Your task to perform on an android device: Is it going to rain today? Image 0: 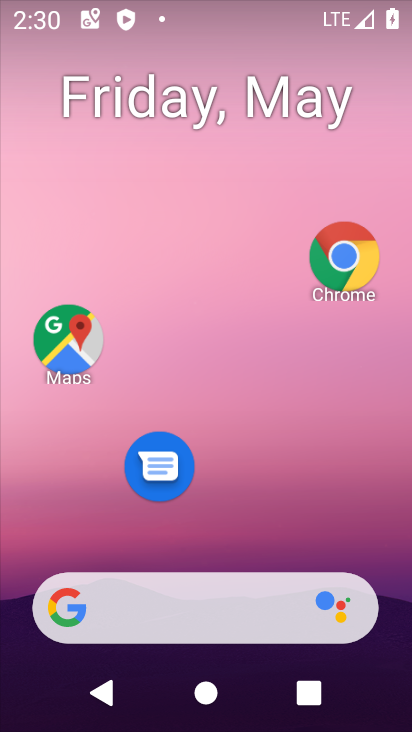
Step 0: drag from (276, 516) to (266, 39)
Your task to perform on an android device: Is it going to rain today? Image 1: 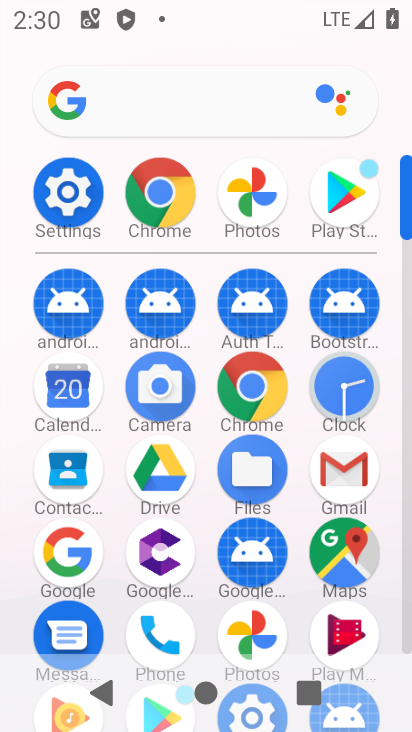
Step 1: click (242, 388)
Your task to perform on an android device: Is it going to rain today? Image 2: 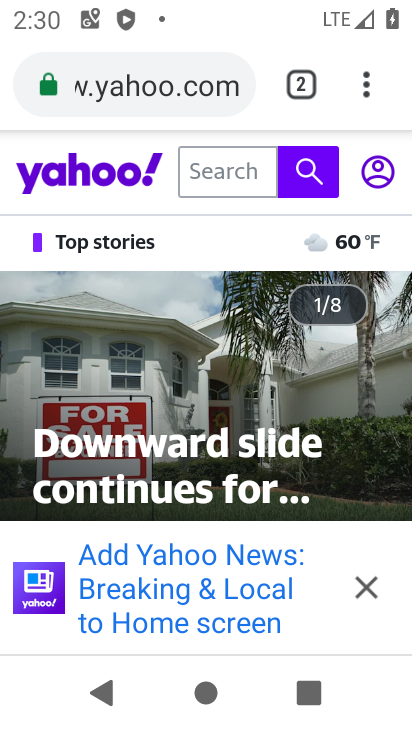
Step 2: click (191, 92)
Your task to perform on an android device: Is it going to rain today? Image 3: 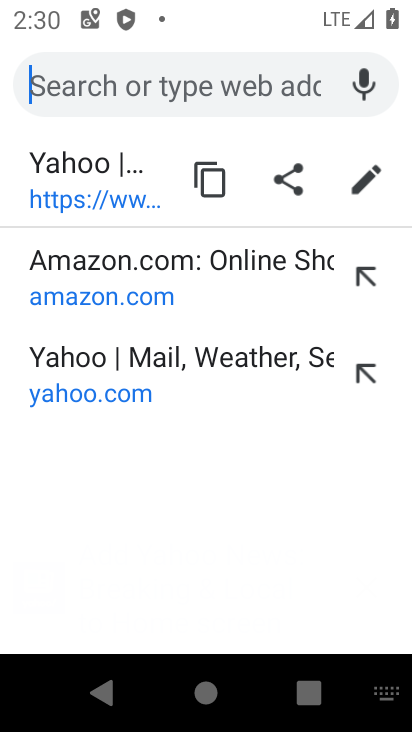
Step 3: type "Is it going to rain today?"
Your task to perform on an android device: Is it going to rain today? Image 4: 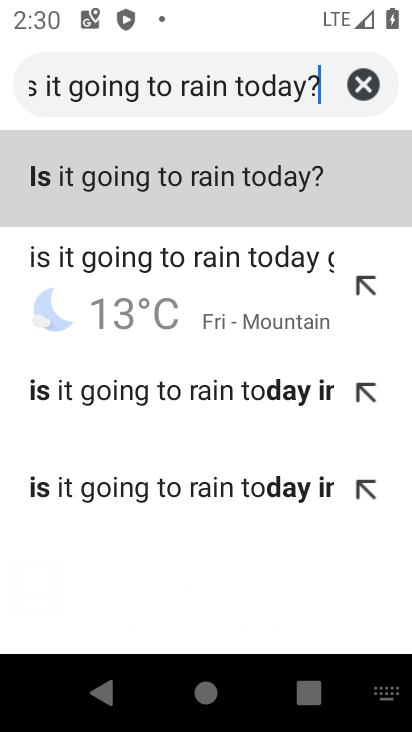
Step 4: click (292, 186)
Your task to perform on an android device: Is it going to rain today? Image 5: 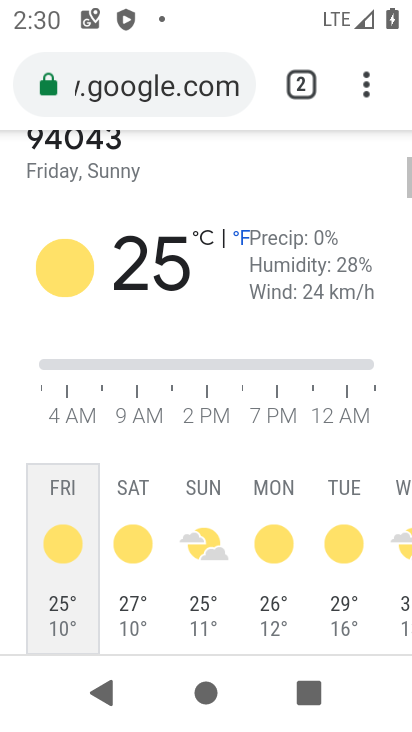
Step 5: task complete